Your task to perform on an android device: open app "Google Find My Device" (install if not already installed) Image 0: 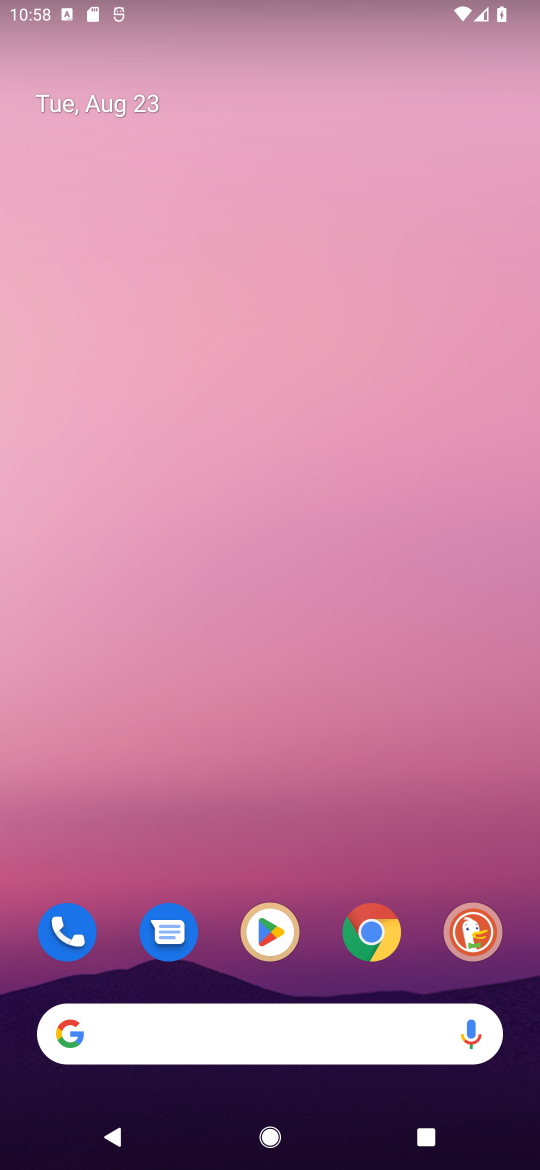
Step 0: click (260, 918)
Your task to perform on an android device: open app "Google Find My Device" (install if not already installed) Image 1: 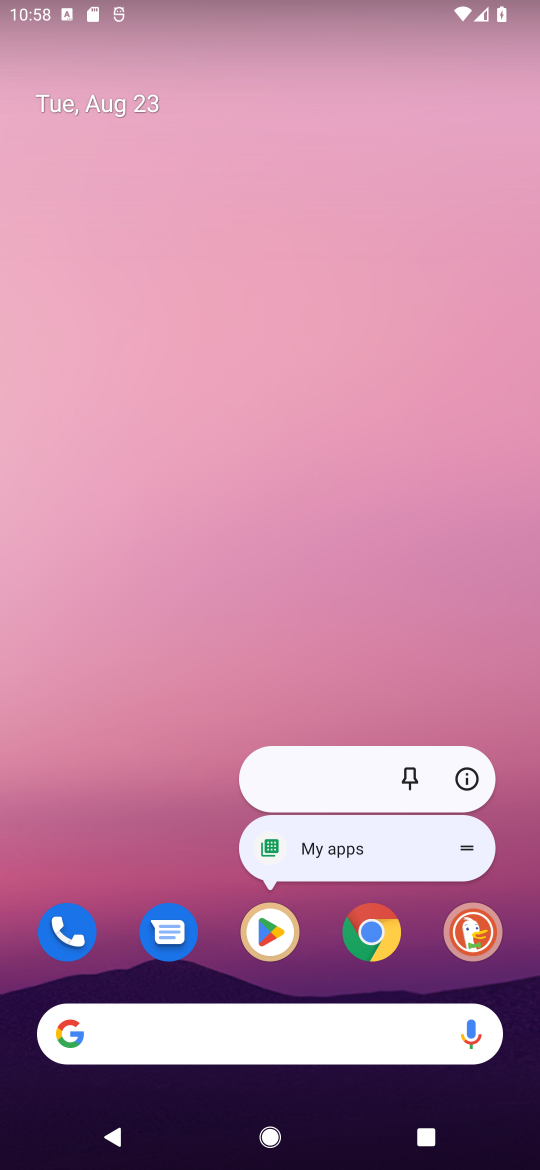
Step 1: click (281, 934)
Your task to perform on an android device: open app "Google Find My Device" (install if not already installed) Image 2: 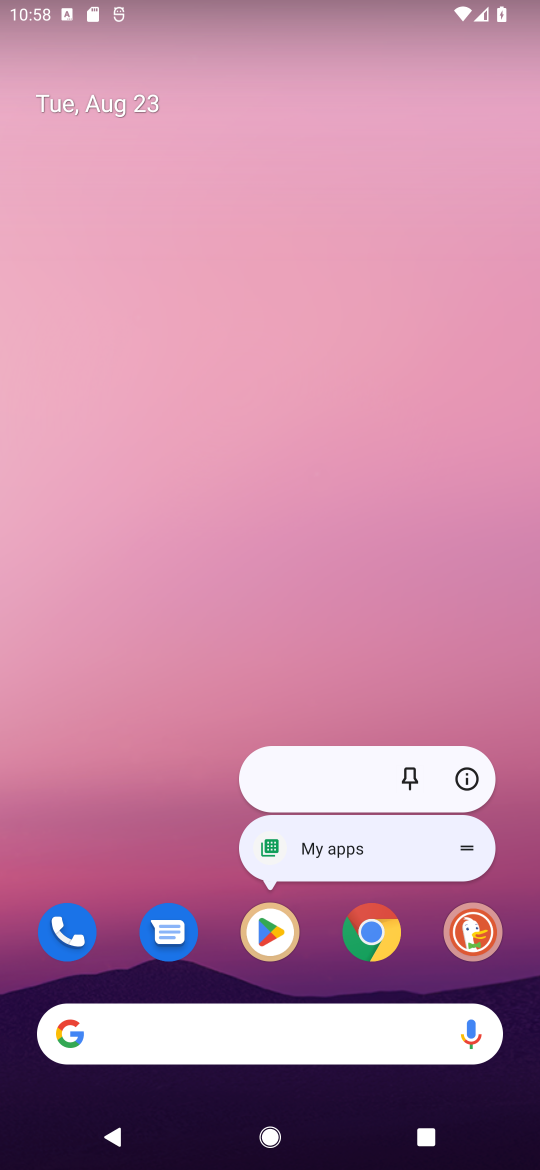
Step 2: click (270, 929)
Your task to perform on an android device: open app "Google Find My Device" (install if not already installed) Image 3: 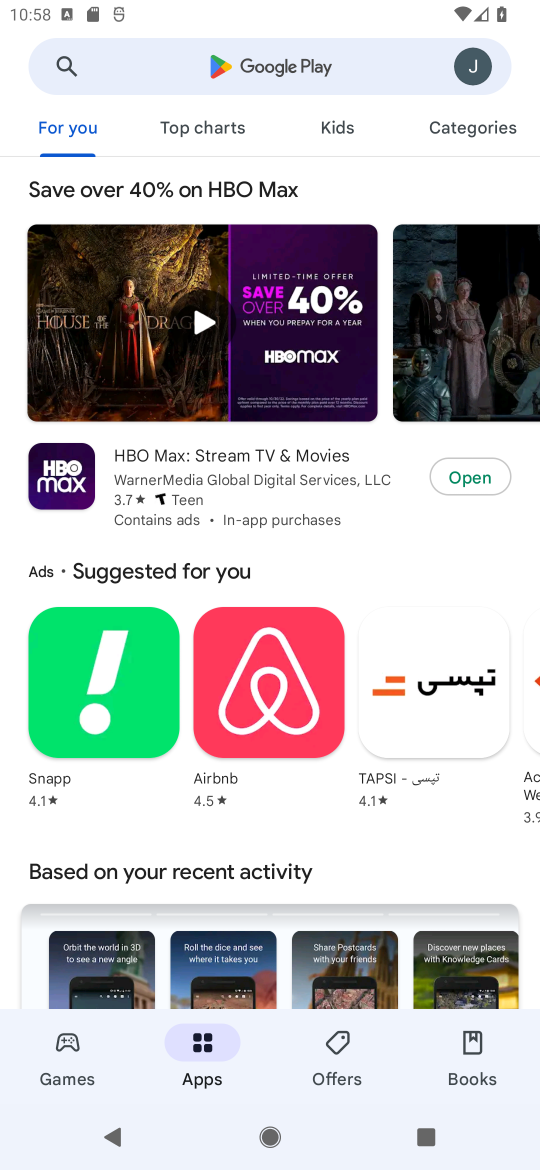
Step 3: click (288, 51)
Your task to perform on an android device: open app "Google Find My Device" (install if not already installed) Image 4: 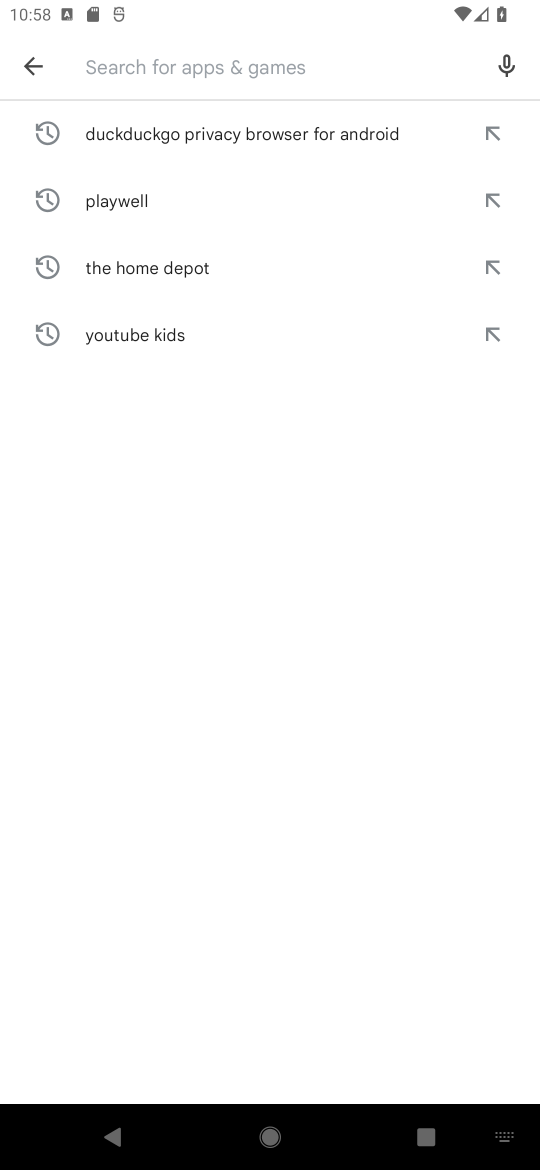
Step 4: click (218, 65)
Your task to perform on an android device: open app "Google Find My Device" (install if not already installed) Image 5: 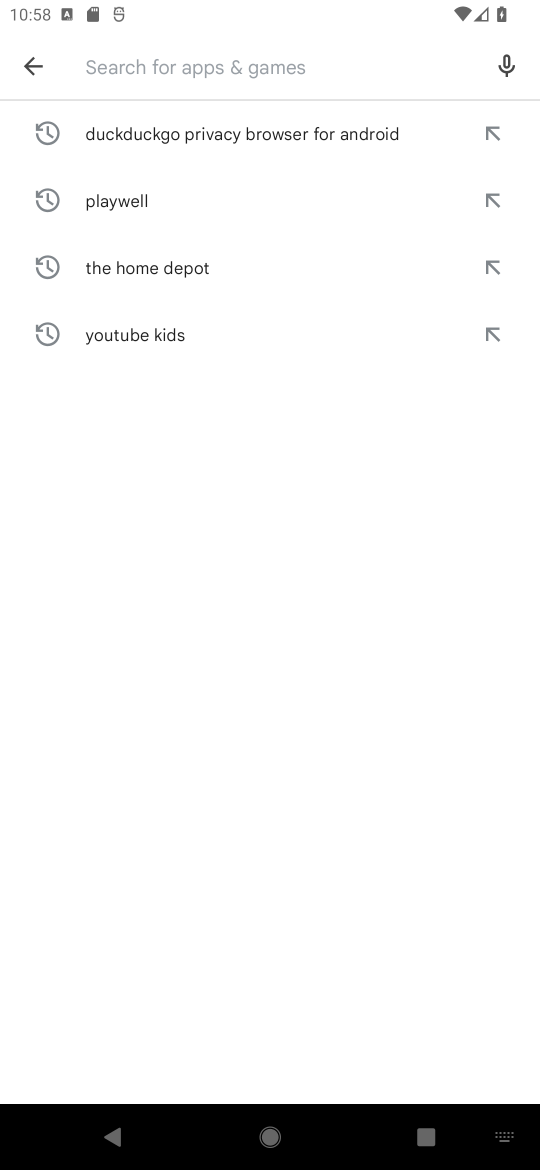
Step 5: type "Google Find My Device"
Your task to perform on an android device: open app "Google Find My Device" (install if not already installed) Image 6: 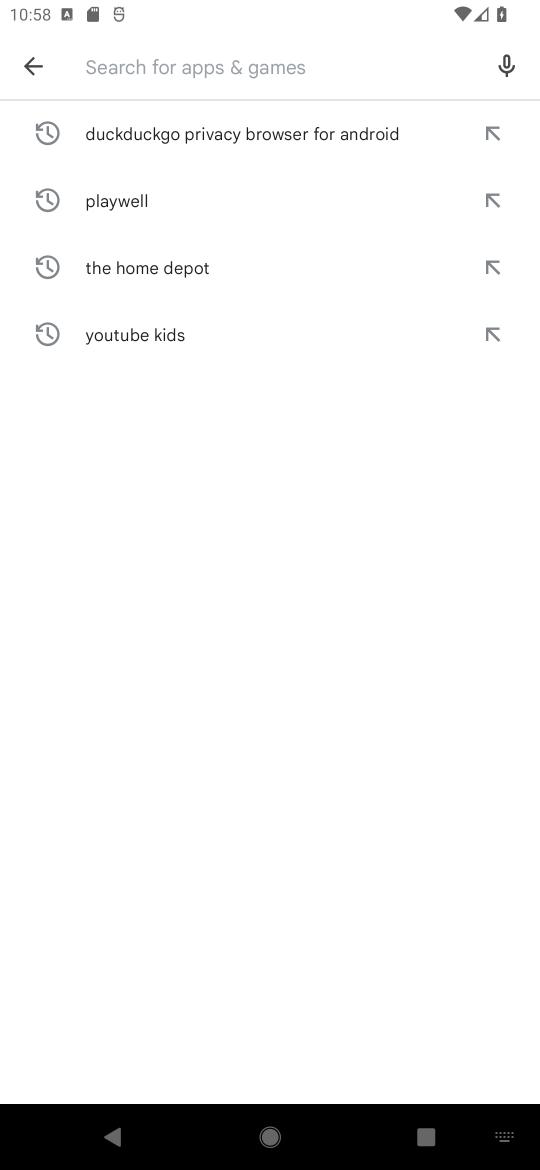
Step 6: click (256, 724)
Your task to perform on an android device: open app "Google Find My Device" (install if not already installed) Image 7: 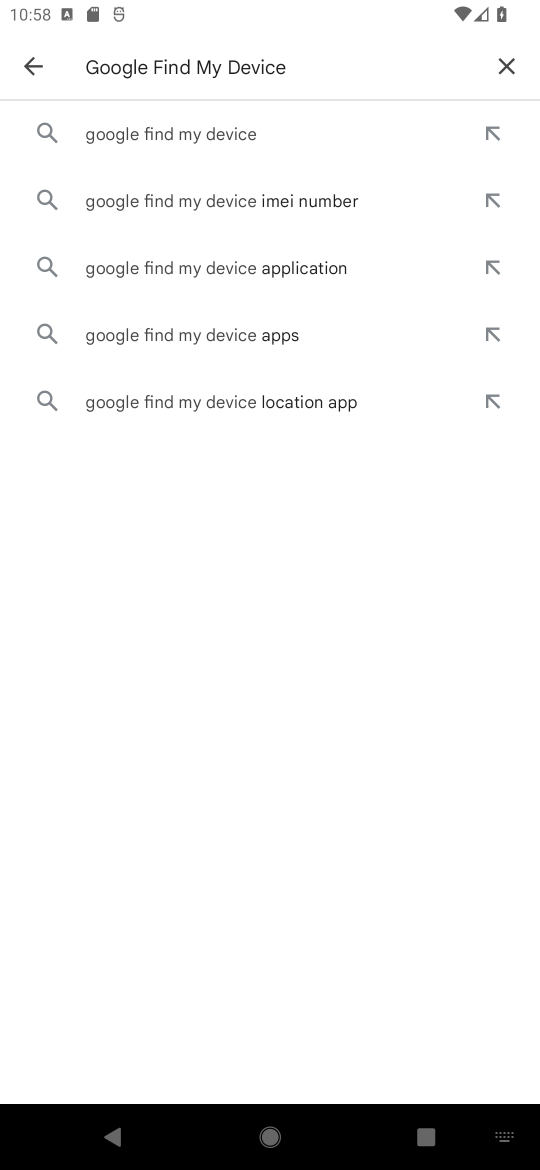
Step 7: click (234, 117)
Your task to perform on an android device: open app "Google Find My Device" (install if not already installed) Image 8: 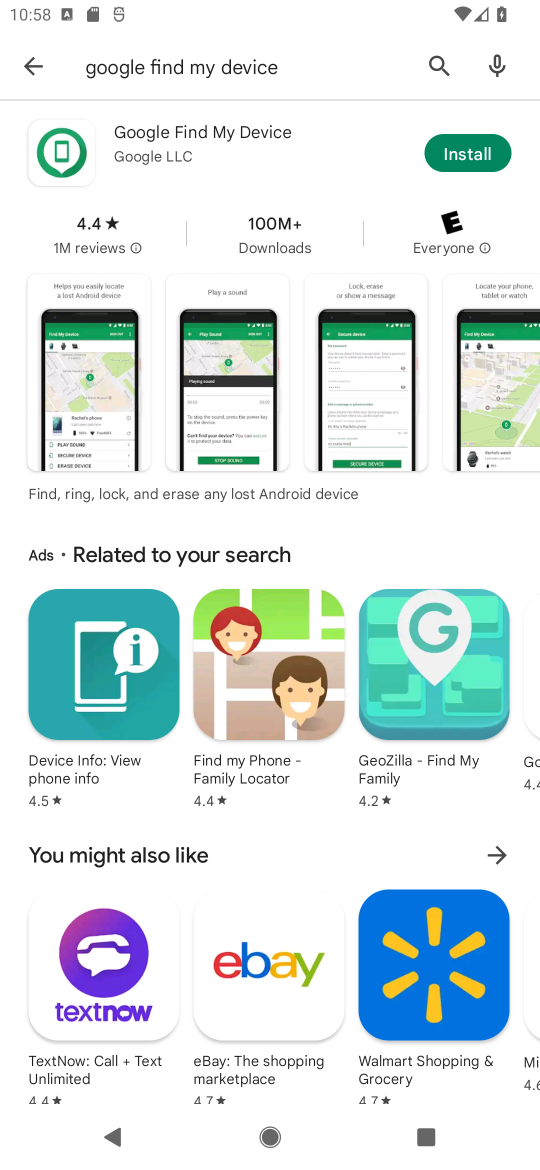
Step 8: click (471, 159)
Your task to perform on an android device: open app "Google Find My Device" (install if not already installed) Image 9: 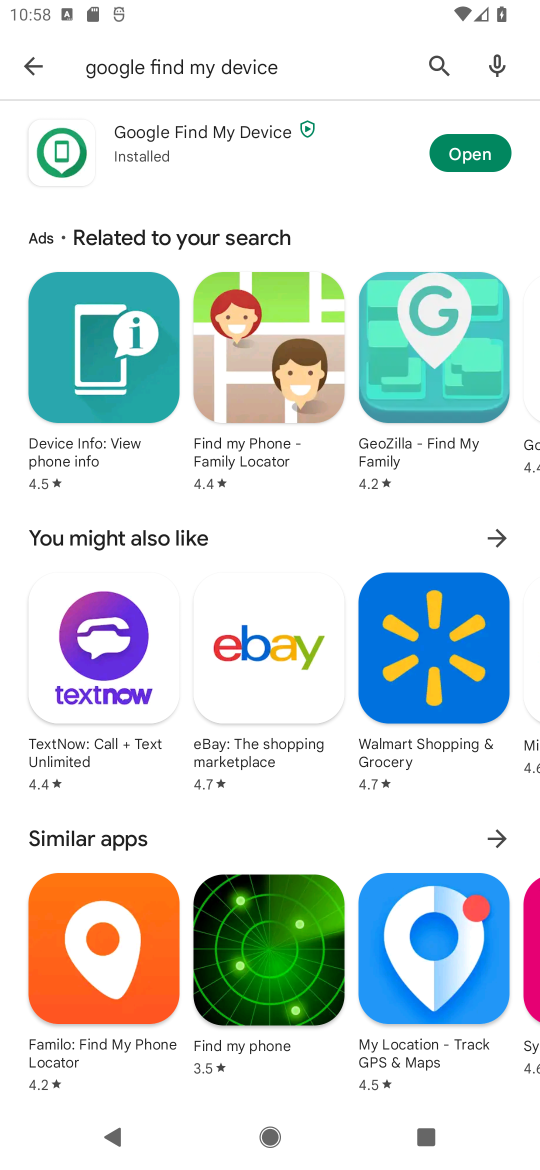
Step 9: click (471, 158)
Your task to perform on an android device: open app "Google Find My Device" (install if not already installed) Image 10: 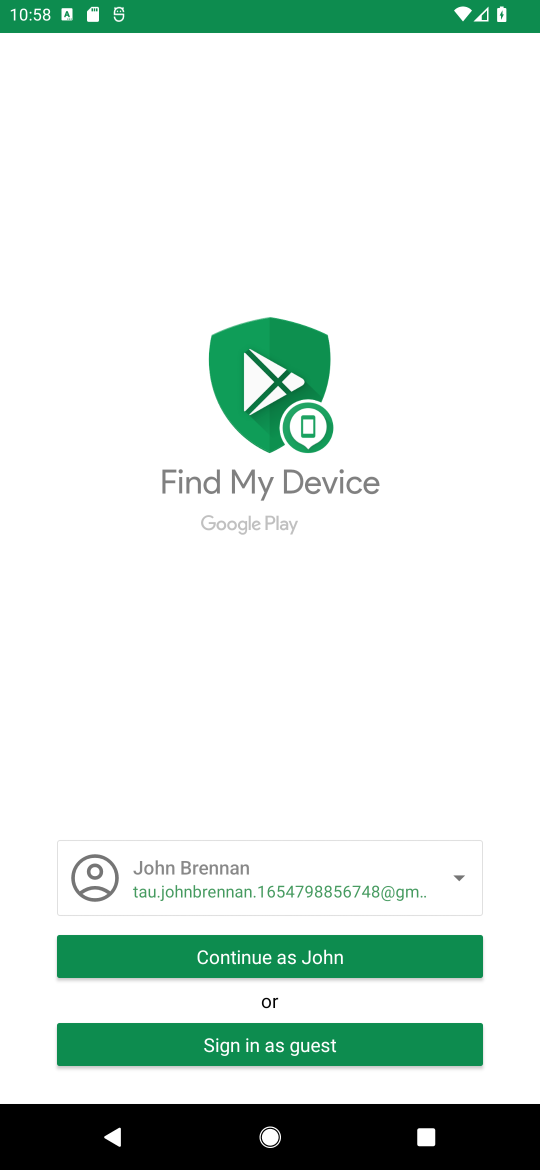
Step 10: task complete